Your task to perform on an android device: turn off improve location accuracy Image 0: 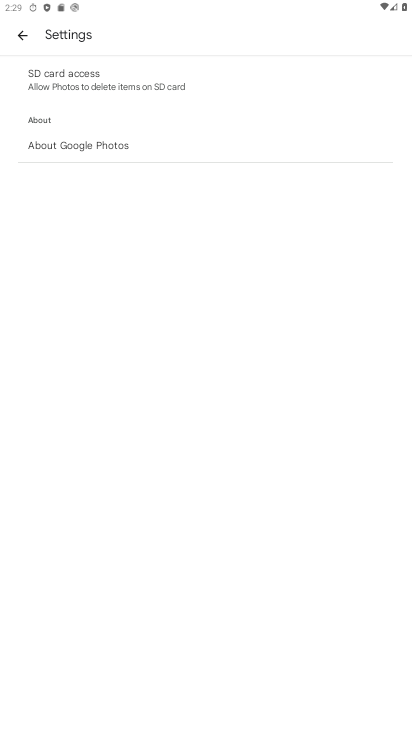
Step 0: press home button
Your task to perform on an android device: turn off improve location accuracy Image 1: 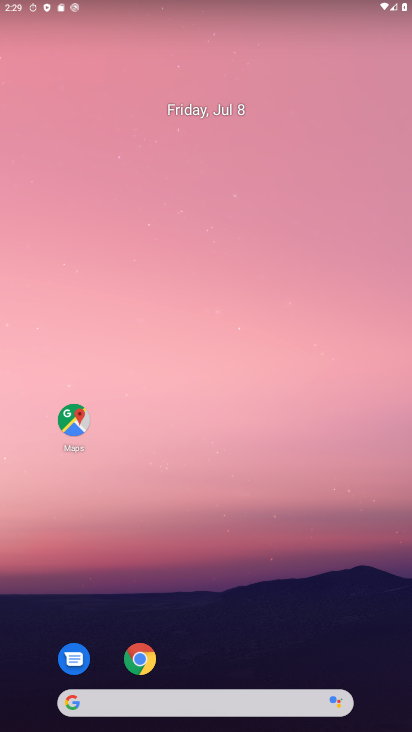
Step 1: drag from (288, 594) to (295, 90)
Your task to perform on an android device: turn off improve location accuracy Image 2: 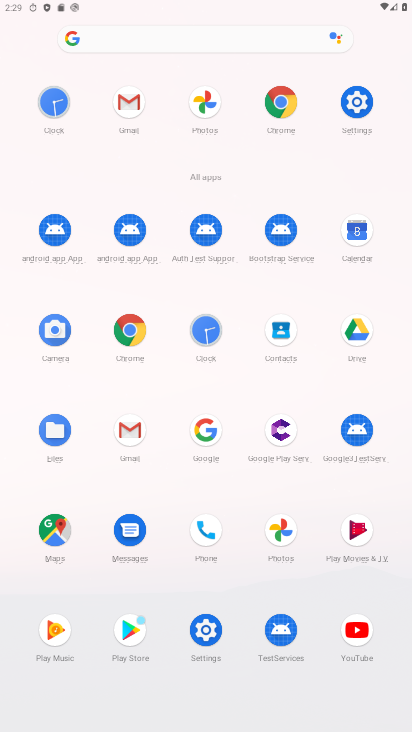
Step 2: click (352, 97)
Your task to perform on an android device: turn off improve location accuracy Image 3: 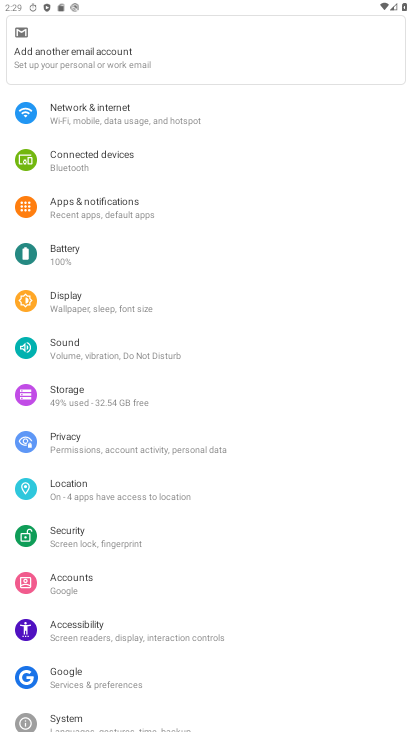
Step 3: click (107, 489)
Your task to perform on an android device: turn off improve location accuracy Image 4: 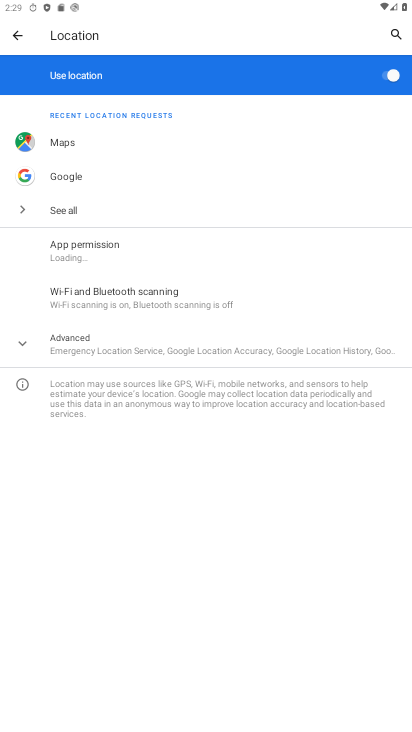
Step 4: click (214, 342)
Your task to perform on an android device: turn off improve location accuracy Image 5: 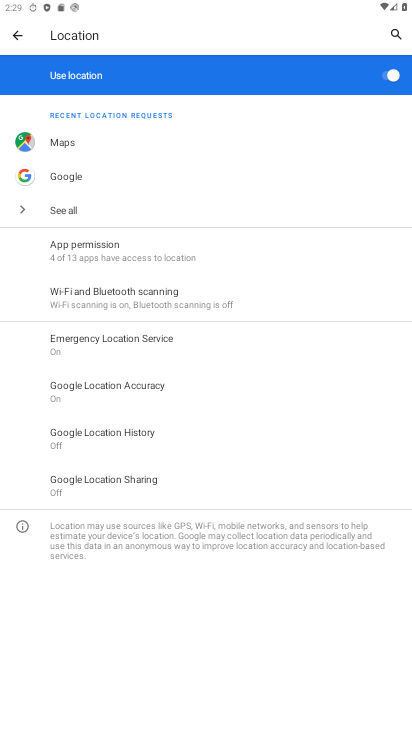
Step 5: click (157, 391)
Your task to perform on an android device: turn off improve location accuracy Image 6: 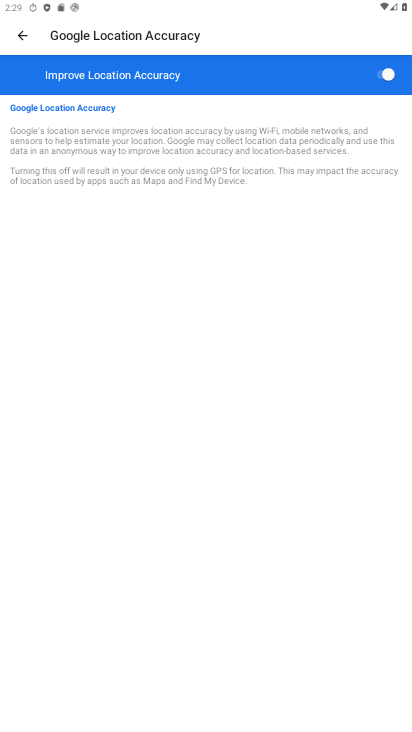
Step 6: click (393, 76)
Your task to perform on an android device: turn off improve location accuracy Image 7: 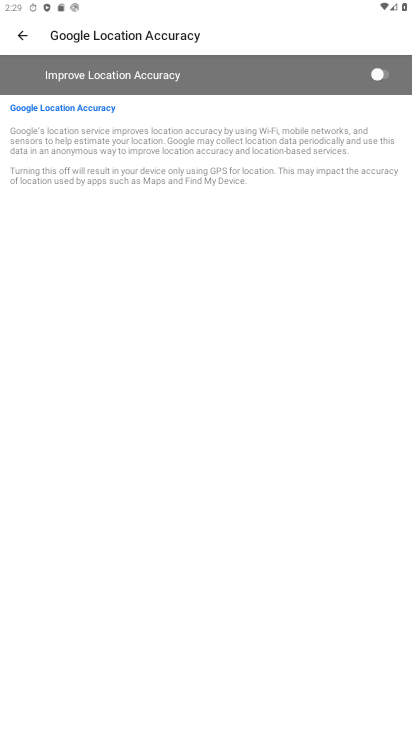
Step 7: task complete